Your task to perform on an android device: add a contact in the contacts app Image 0: 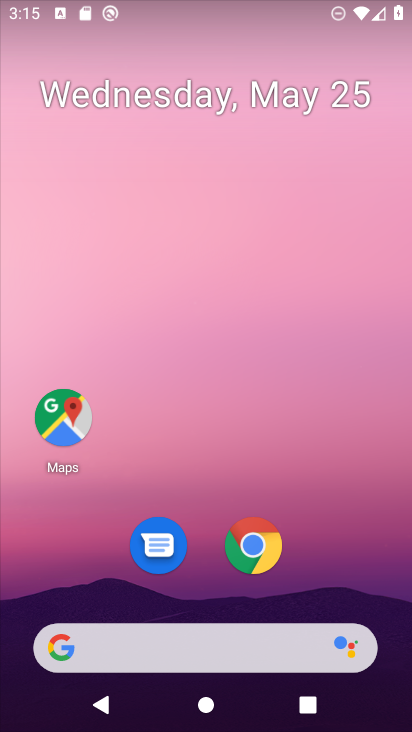
Step 0: drag from (359, 589) to (288, 191)
Your task to perform on an android device: add a contact in the contacts app Image 1: 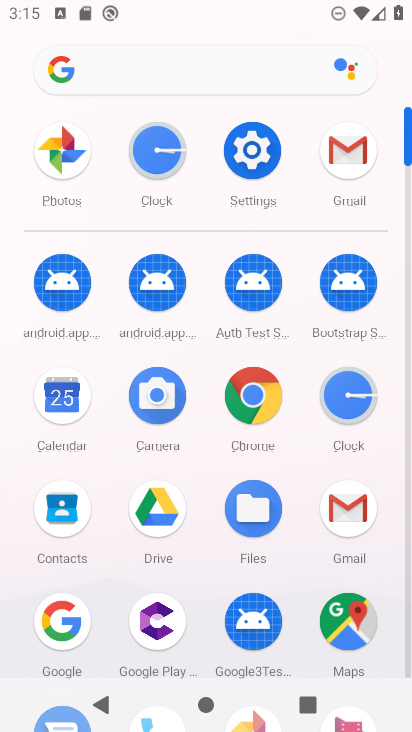
Step 1: click (56, 407)
Your task to perform on an android device: add a contact in the contacts app Image 2: 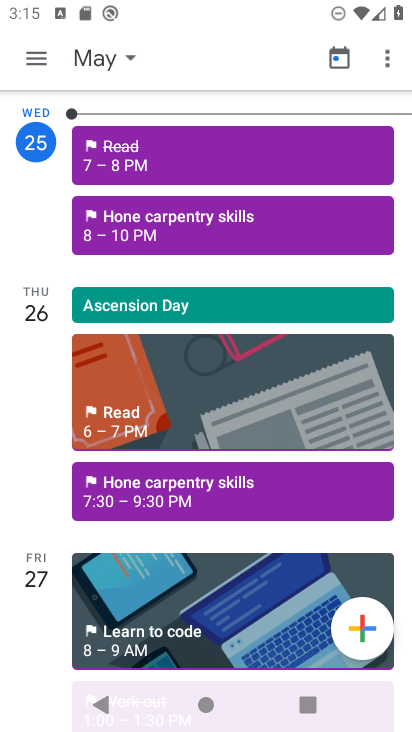
Step 2: task complete